Your task to perform on an android device: Open display settings Image 0: 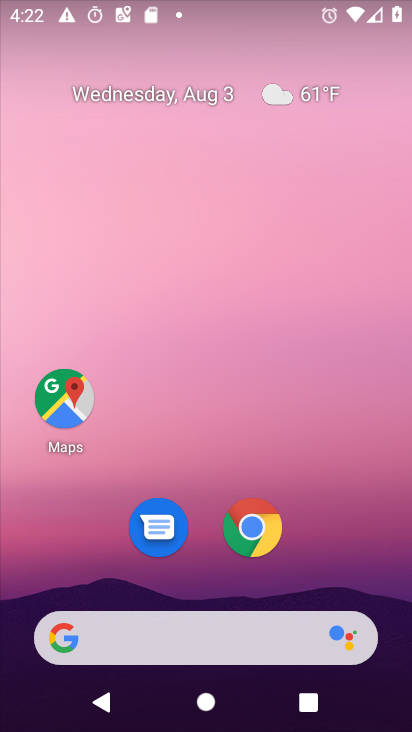
Step 0: drag from (337, 498) to (327, 89)
Your task to perform on an android device: Open display settings Image 1: 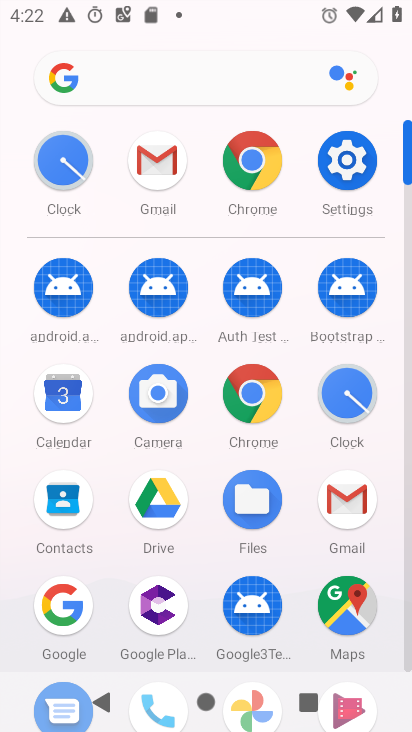
Step 1: click (345, 158)
Your task to perform on an android device: Open display settings Image 2: 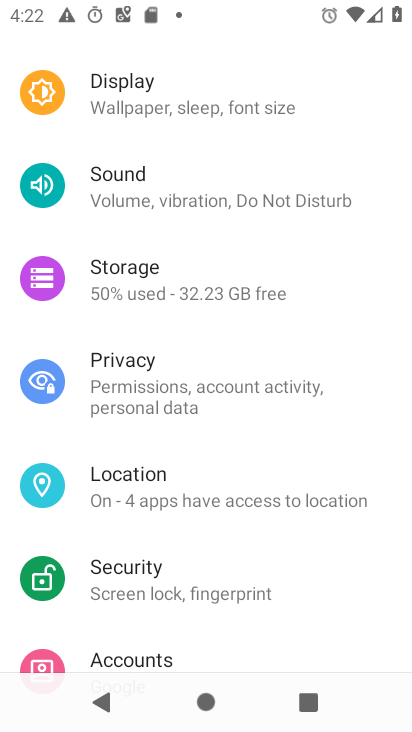
Step 2: drag from (307, 586) to (281, 669)
Your task to perform on an android device: Open display settings Image 3: 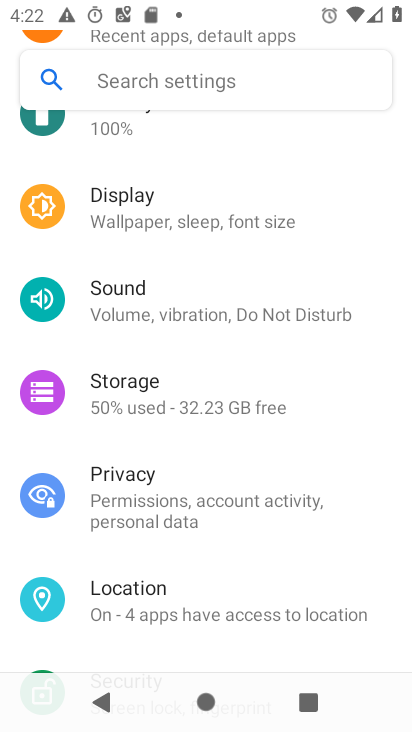
Step 3: click (147, 218)
Your task to perform on an android device: Open display settings Image 4: 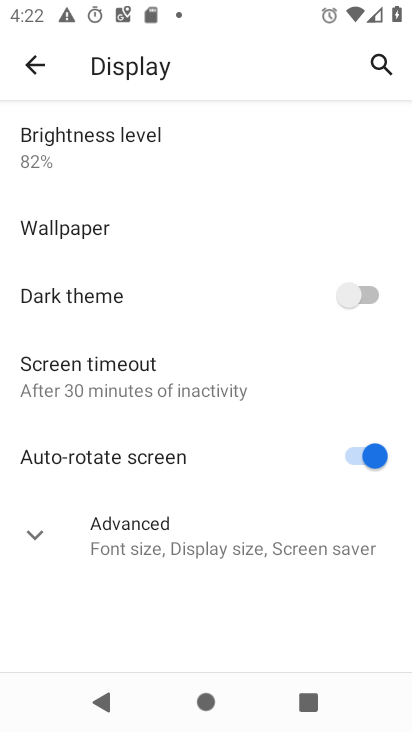
Step 4: task complete